Your task to perform on an android device: Search for the best custom wallets on Etsy. Image 0: 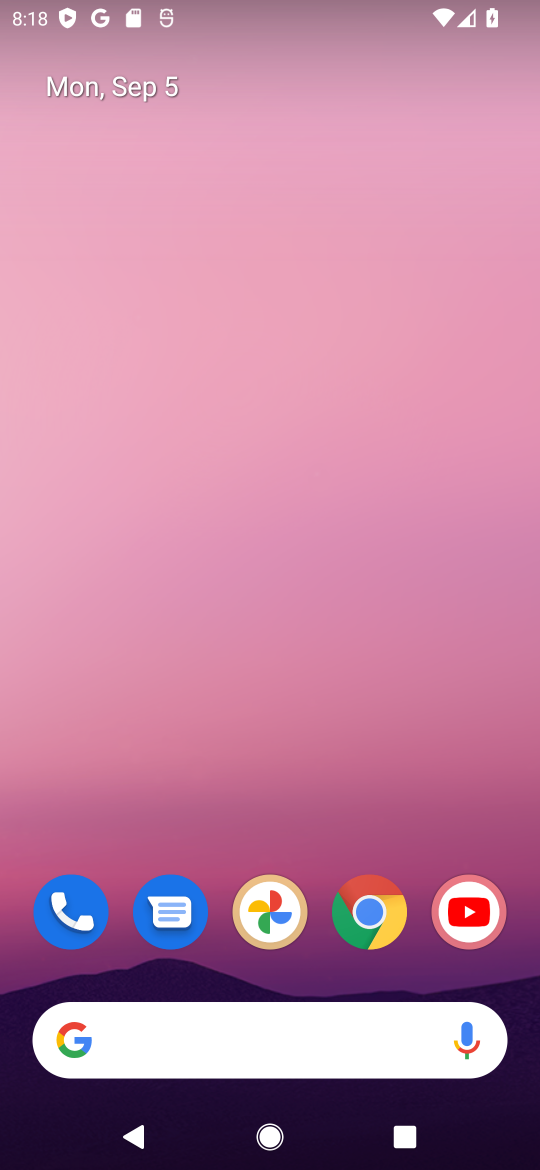
Step 0: click (375, 919)
Your task to perform on an android device: Search for the best custom wallets on Etsy. Image 1: 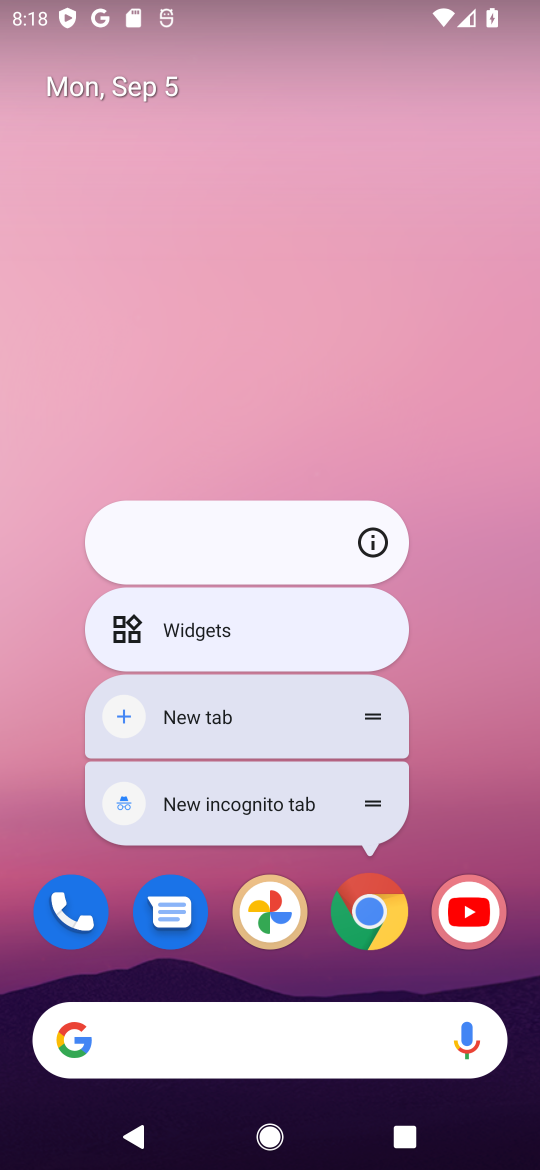
Step 1: click (383, 939)
Your task to perform on an android device: Search for the best custom wallets on Etsy. Image 2: 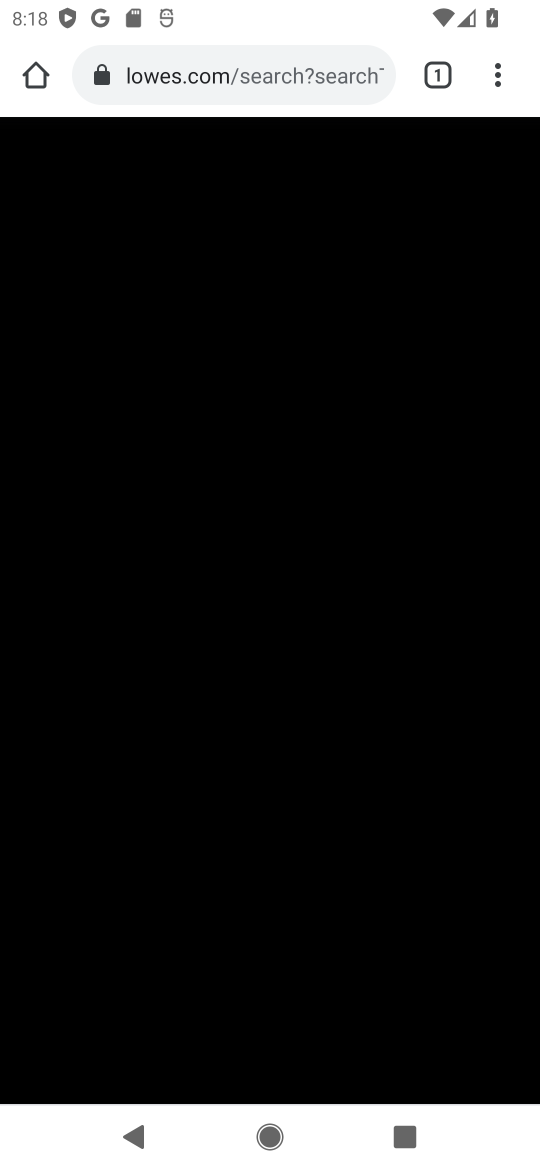
Step 2: click (231, 77)
Your task to perform on an android device: Search for the best custom wallets on Etsy. Image 3: 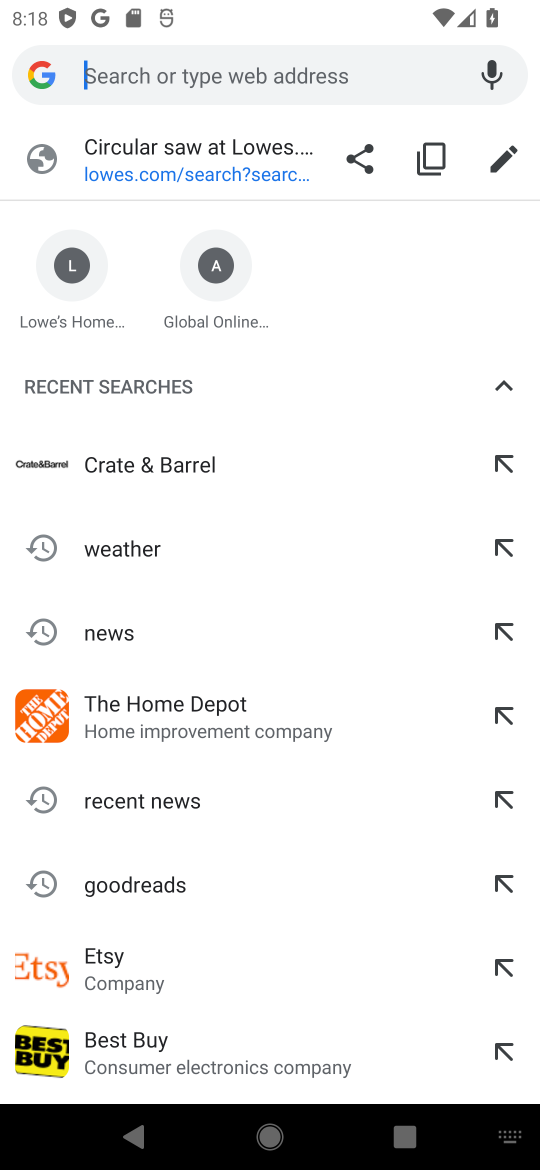
Step 3: type "etsy"
Your task to perform on an android device: Search for the best custom wallets on Etsy. Image 4: 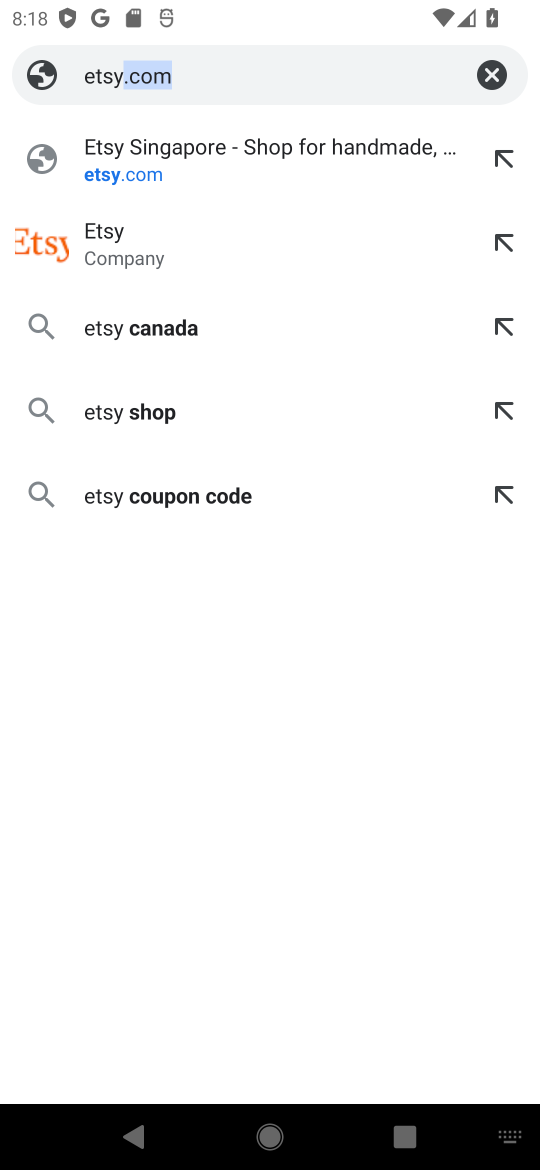
Step 4: press enter
Your task to perform on an android device: Search for the best custom wallets on Etsy. Image 5: 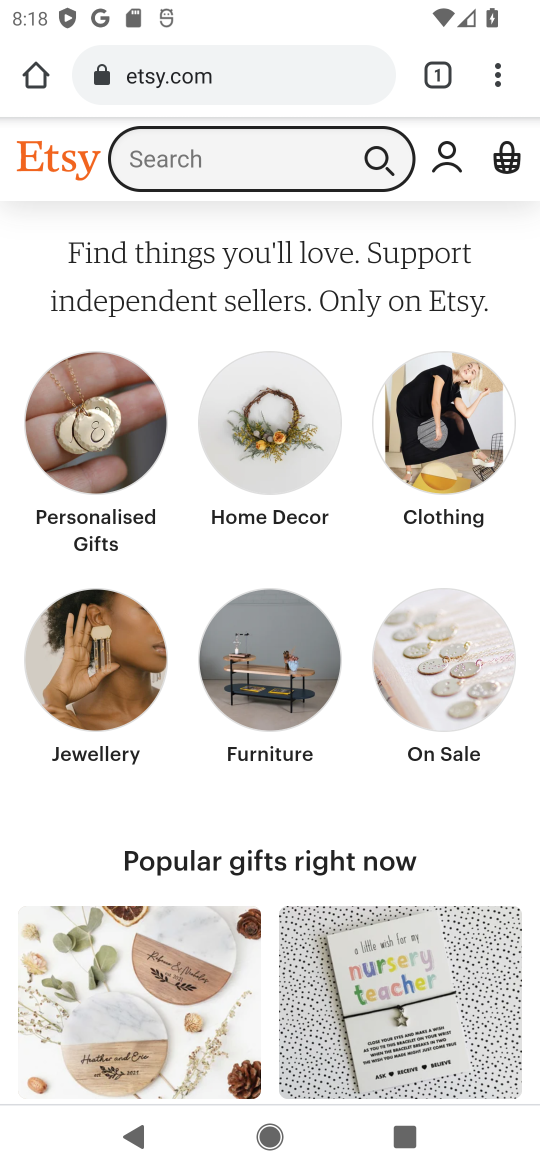
Step 5: click (274, 157)
Your task to perform on an android device: Search for the best custom wallets on Etsy. Image 6: 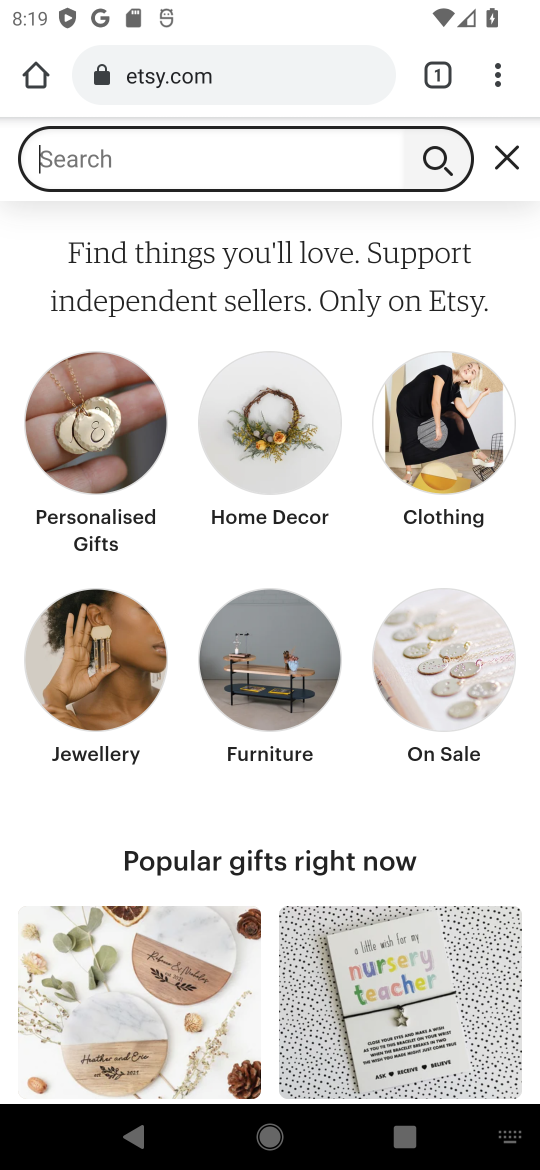
Step 6: type "best custom wallets"
Your task to perform on an android device: Search for the best custom wallets on Etsy. Image 7: 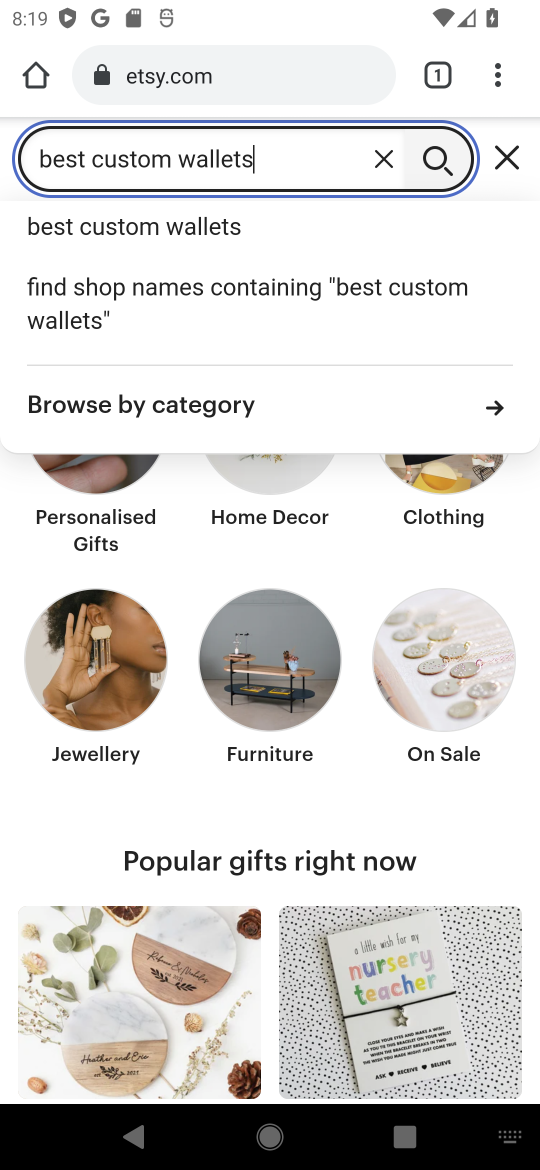
Step 7: press enter
Your task to perform on an android device: Search for the best custom wallets on Etsy. Image 8: 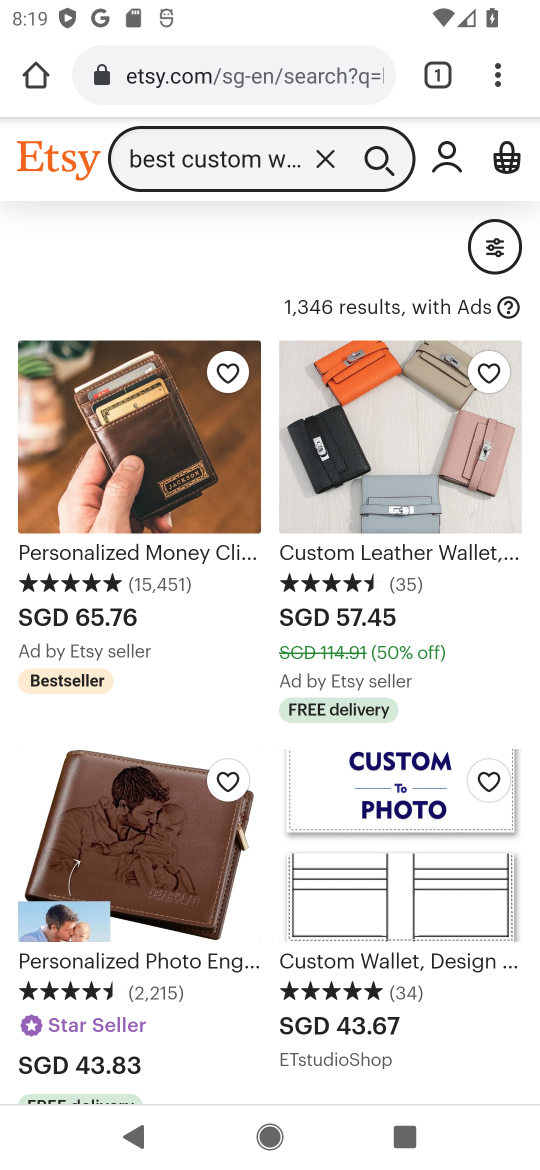
Step 8: click (494, 246)
Your task to perform on an android device: Search for the best custom wallets on Etsy. Image 9: 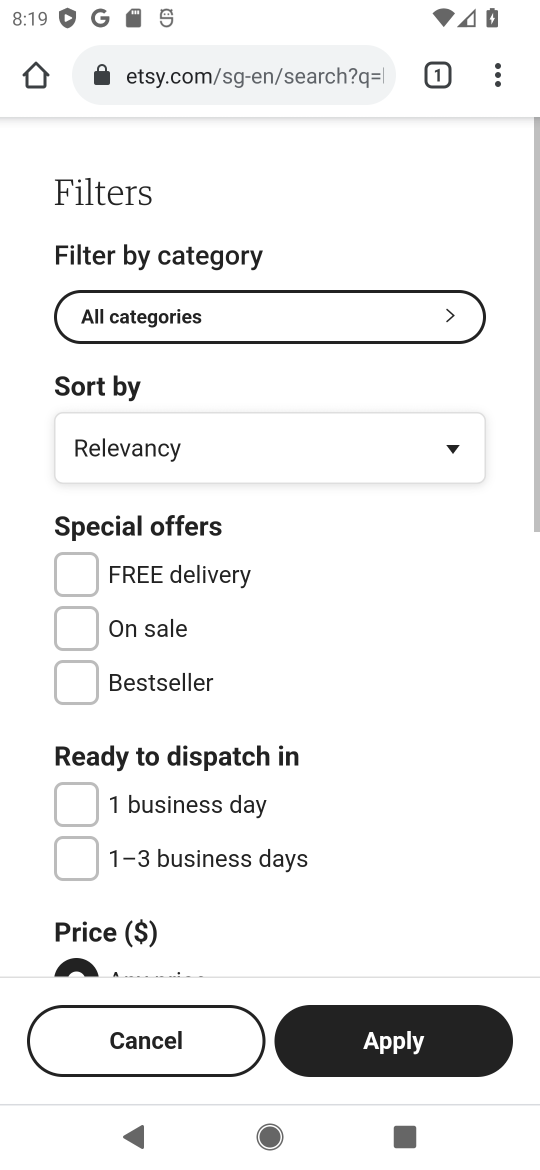
Step 9: click (163, 694)
Your task to perform on an android device: Search for the best custom wallets on Etsy. Image 10: 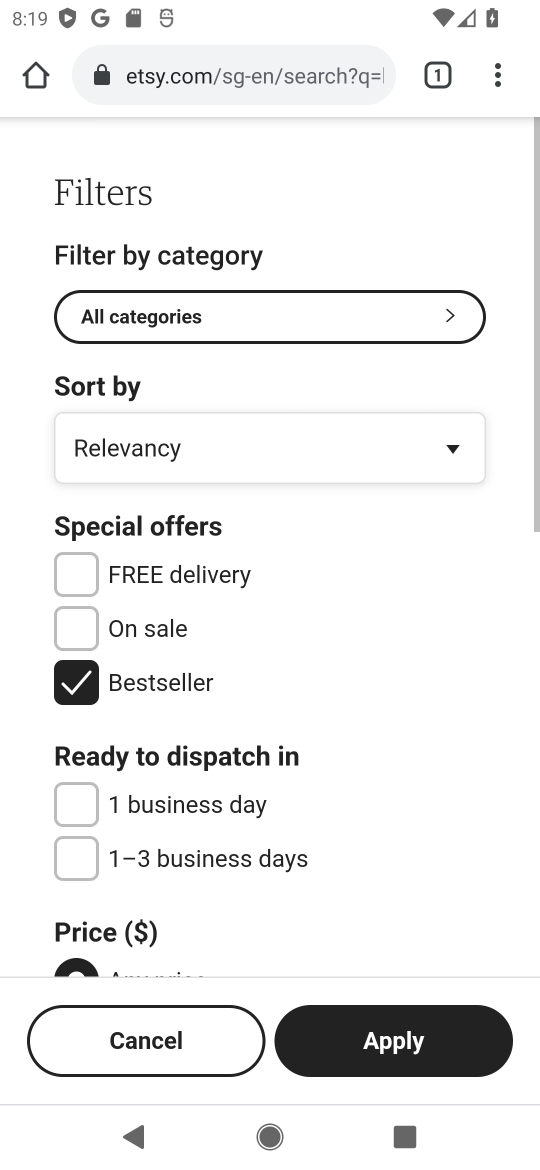
Step 10: drag from (341, 726) to (334, 280)
Your task to perform on an android device: Search for the best custom wallets on Etsy. Image 11: 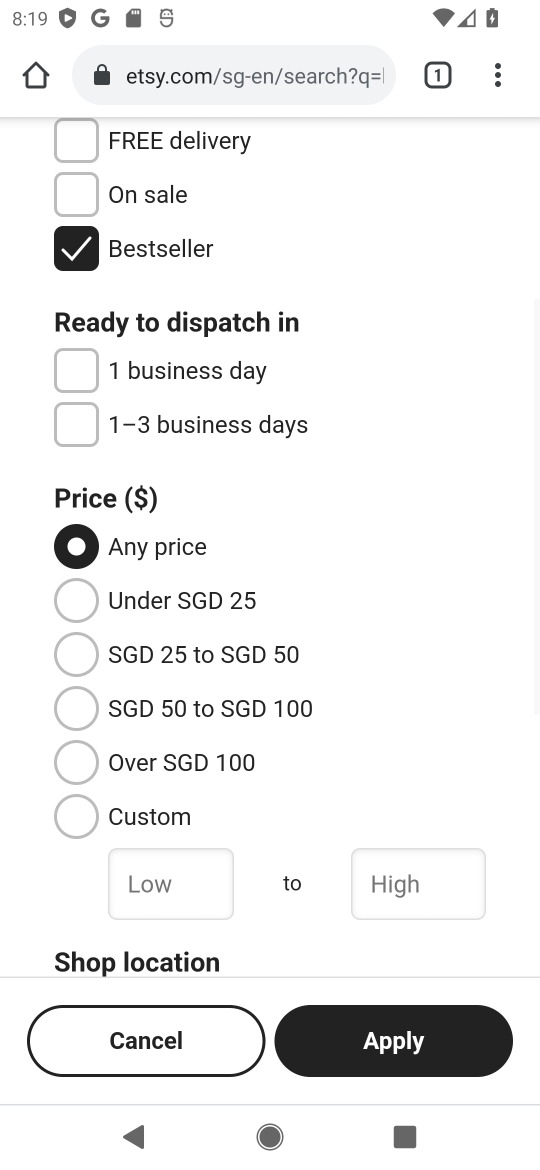
Step 11: drag from (294, 825) to (326, 268)
Your task to perform on an android device: Search for the best custom wallets on Etsy. Image 12: 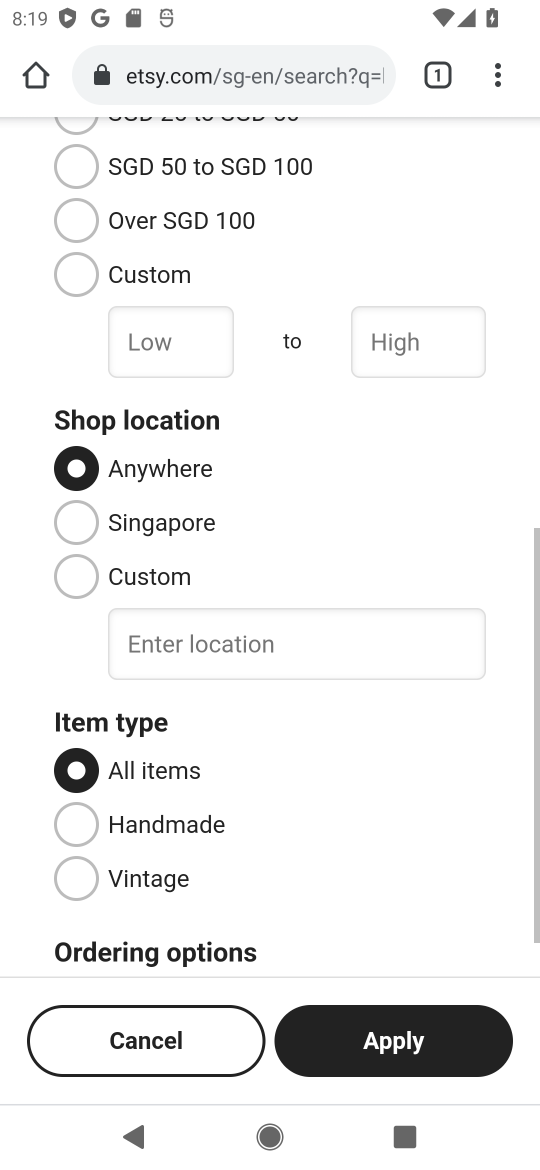
Step 12: drag from (297, 756) to (364, 261)
Your task to perform on an android device: Search for the best custom wallets on Etsy. Image 13: 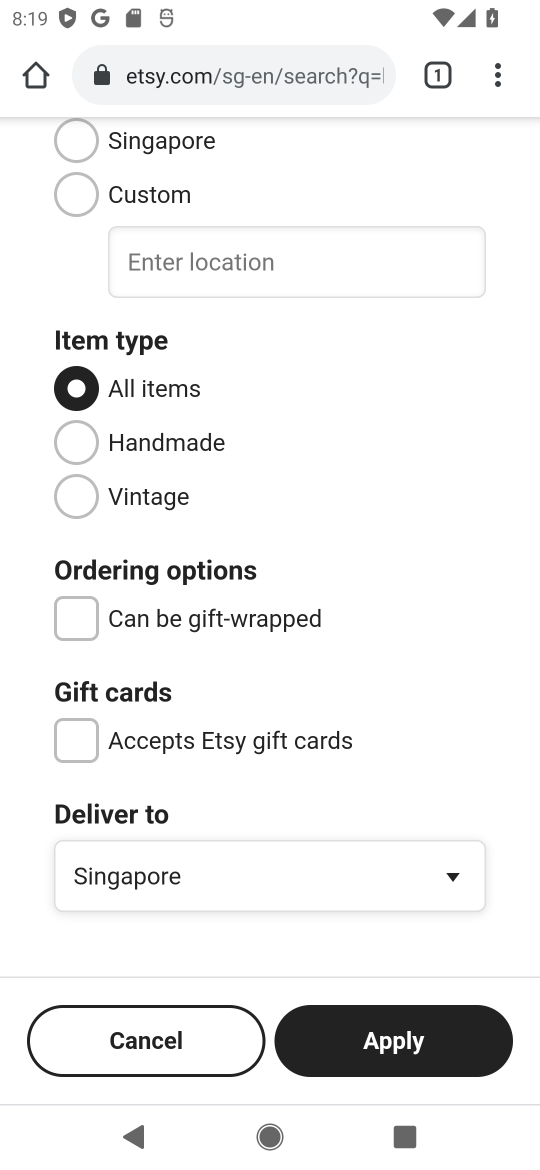
Step 13: drag from (369, 771) to (375, 299)
Your task to perform on an android device: Search for the best custom wallets on Etsy. Image 14: 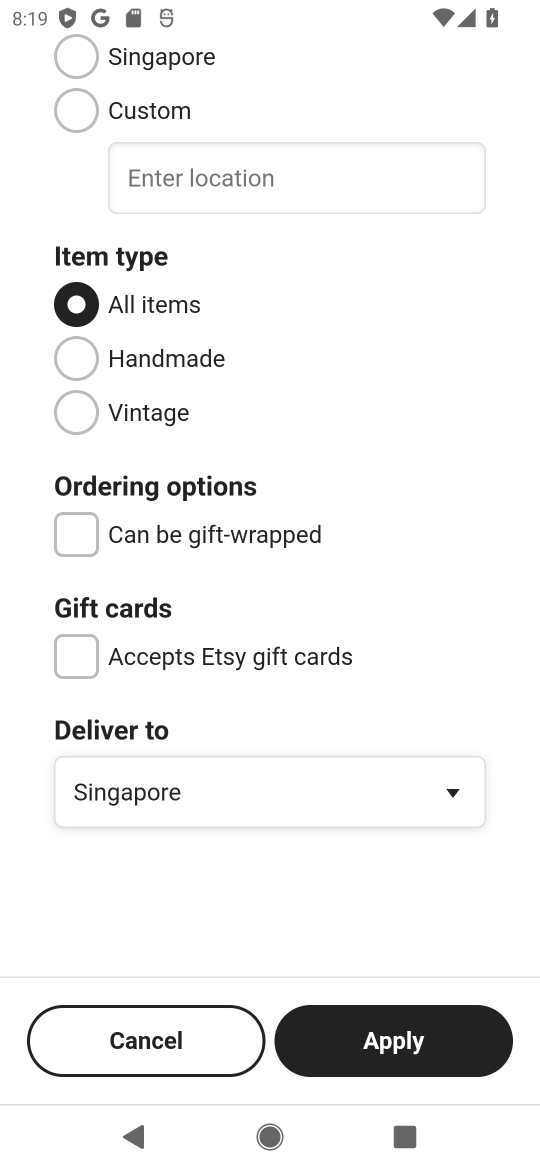
Step 14: drag from (415, 884) to (417, 472)
Your task to perform on an android device: Search for the best custom wallets on Etsy. Image 15: 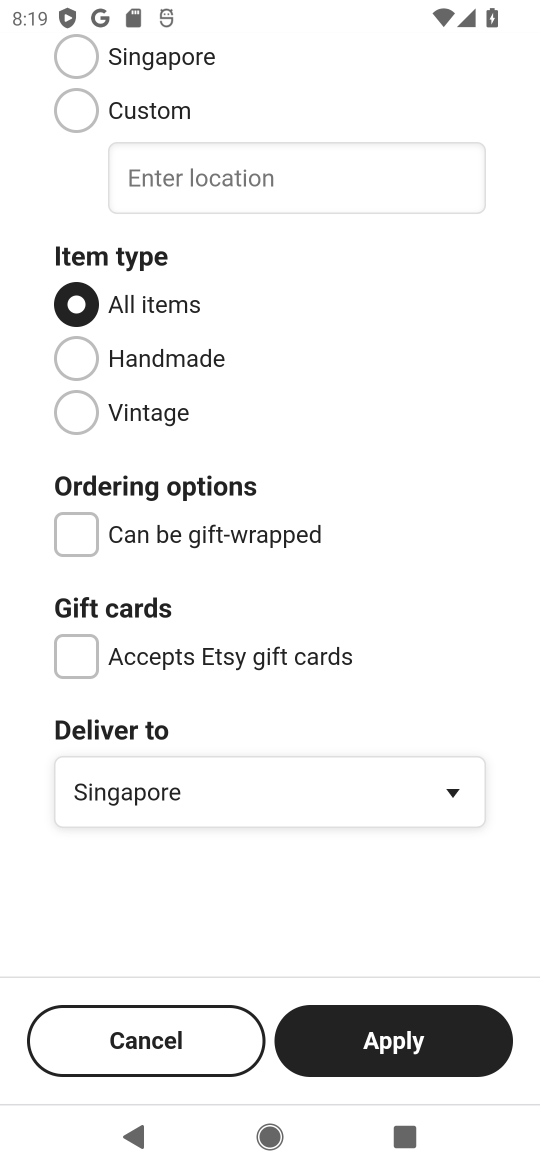
Step 15: click (431, 1034)
Your task to perform on an android device: Search for the best custom wallets on Etsy. Image 16: 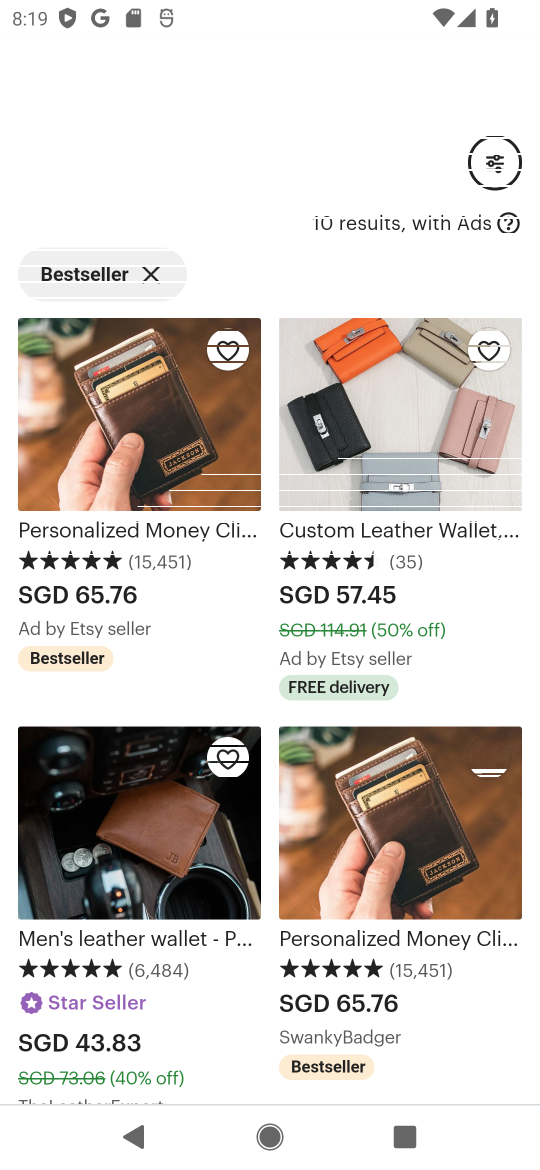
Step 16: task complete